Your task to perform on an android device: toggle location history Image 0: 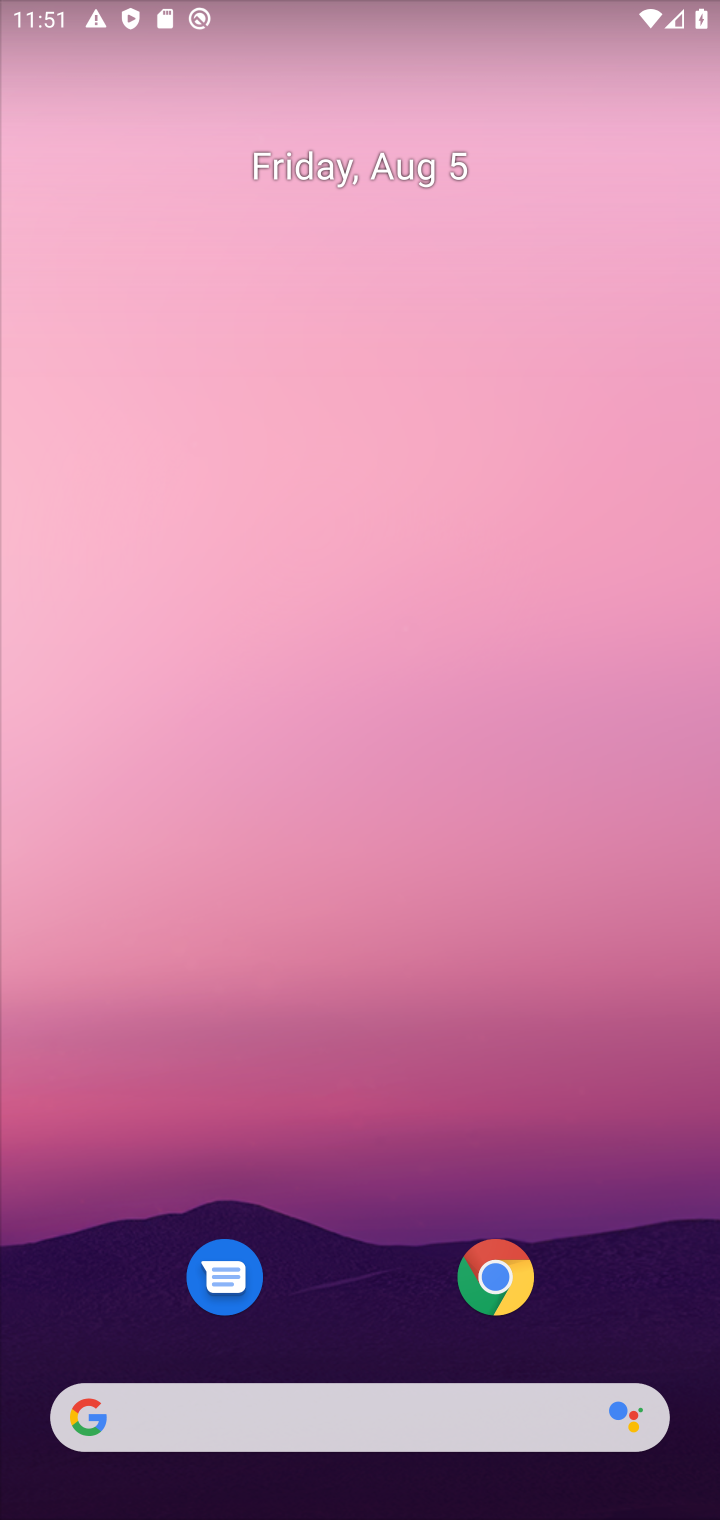
Step 0: drag from (317, 1414) to (523, 448)
Your task to perform on an android device: toggle location history Image 1: 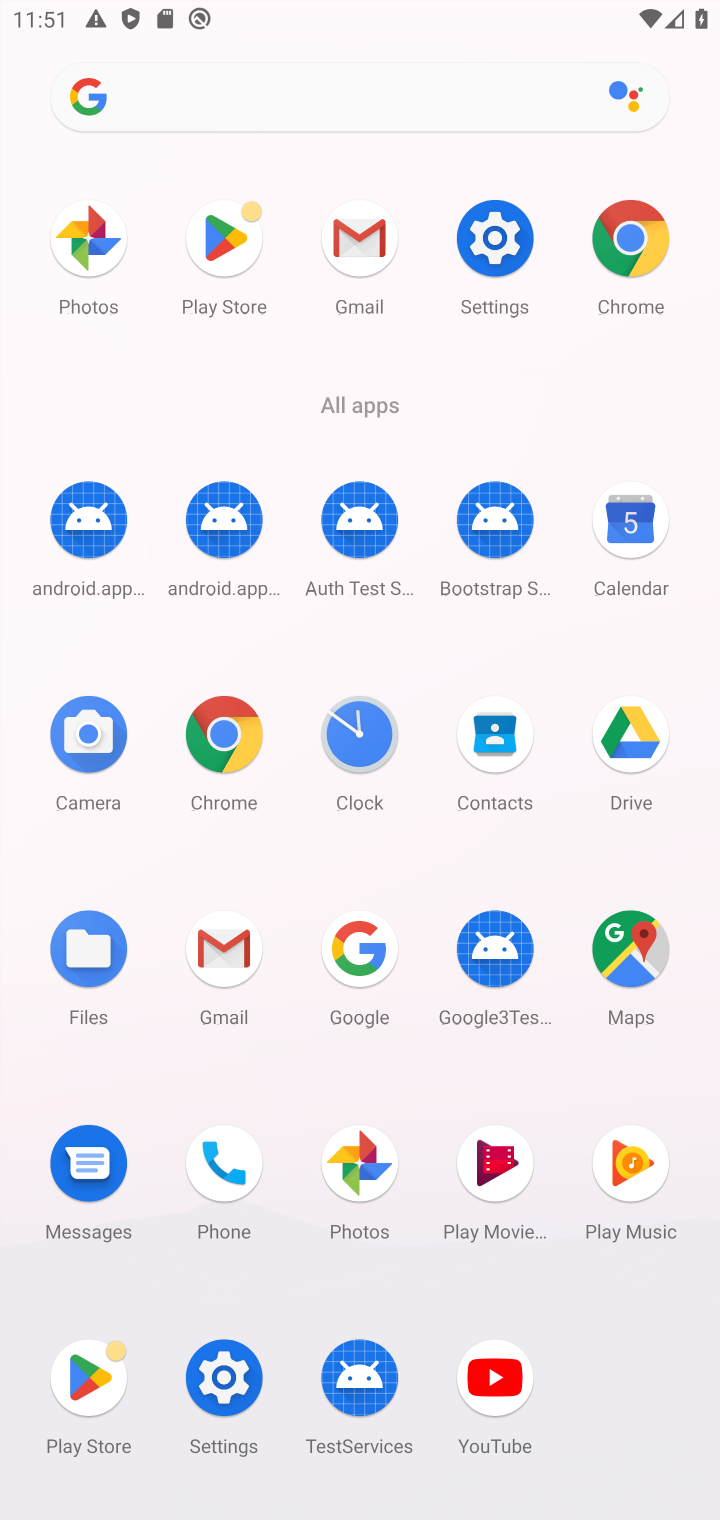
Step 1: click (488, 235)
Your task to perform on an android device: toggle location history Image 2: 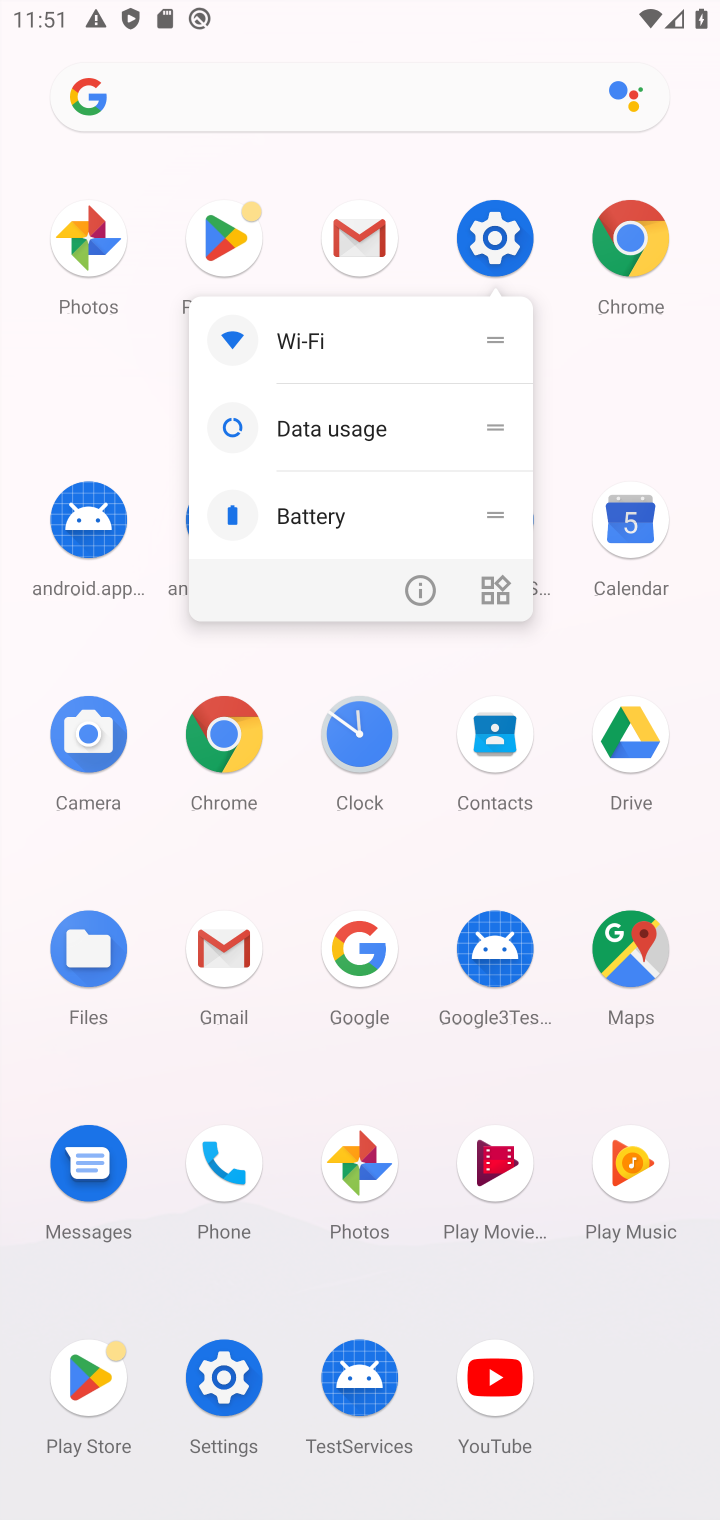
Step 2: click (490, 239)
Your task to perform on an android device: toggle location history Image 3: 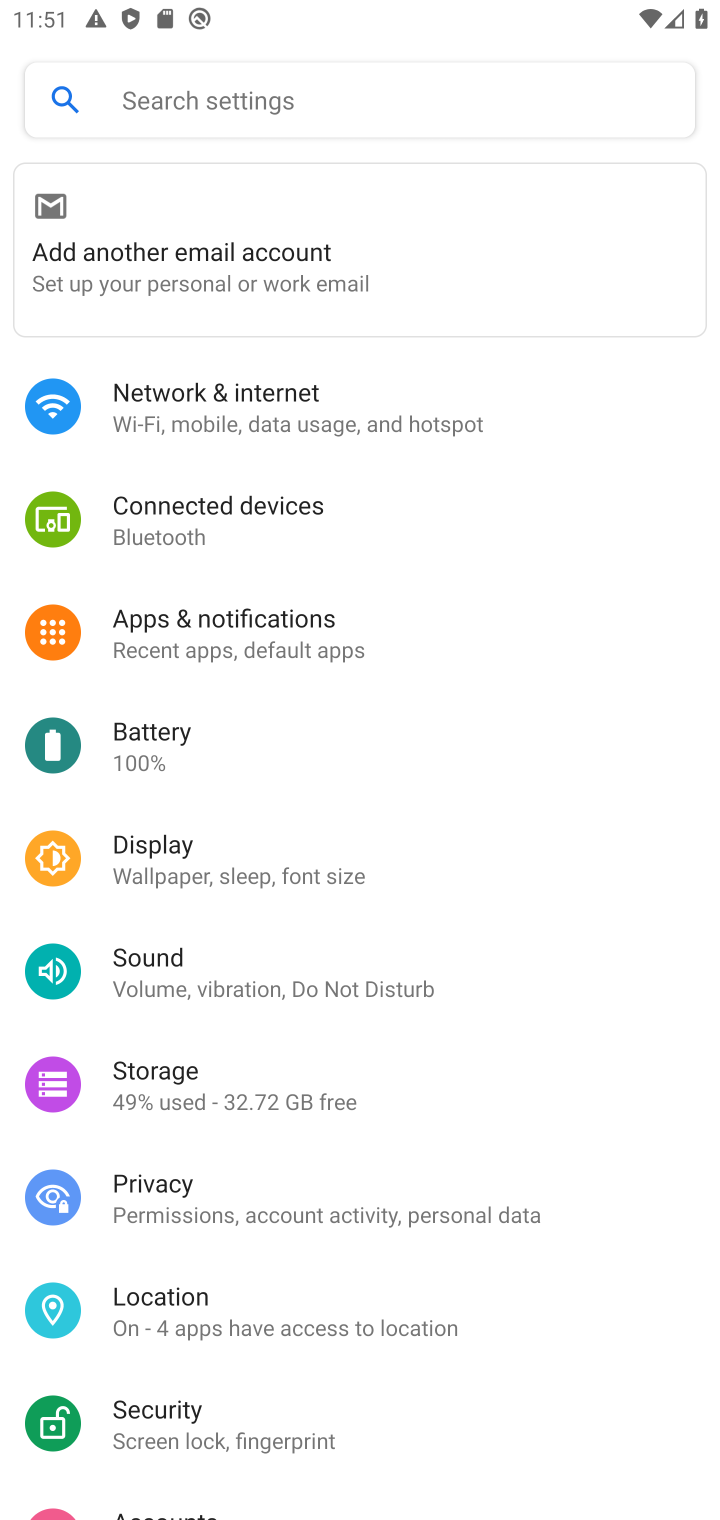
Step 3: click (191, 1304)
Your task to perform on an android device: toggle location history Image 4: 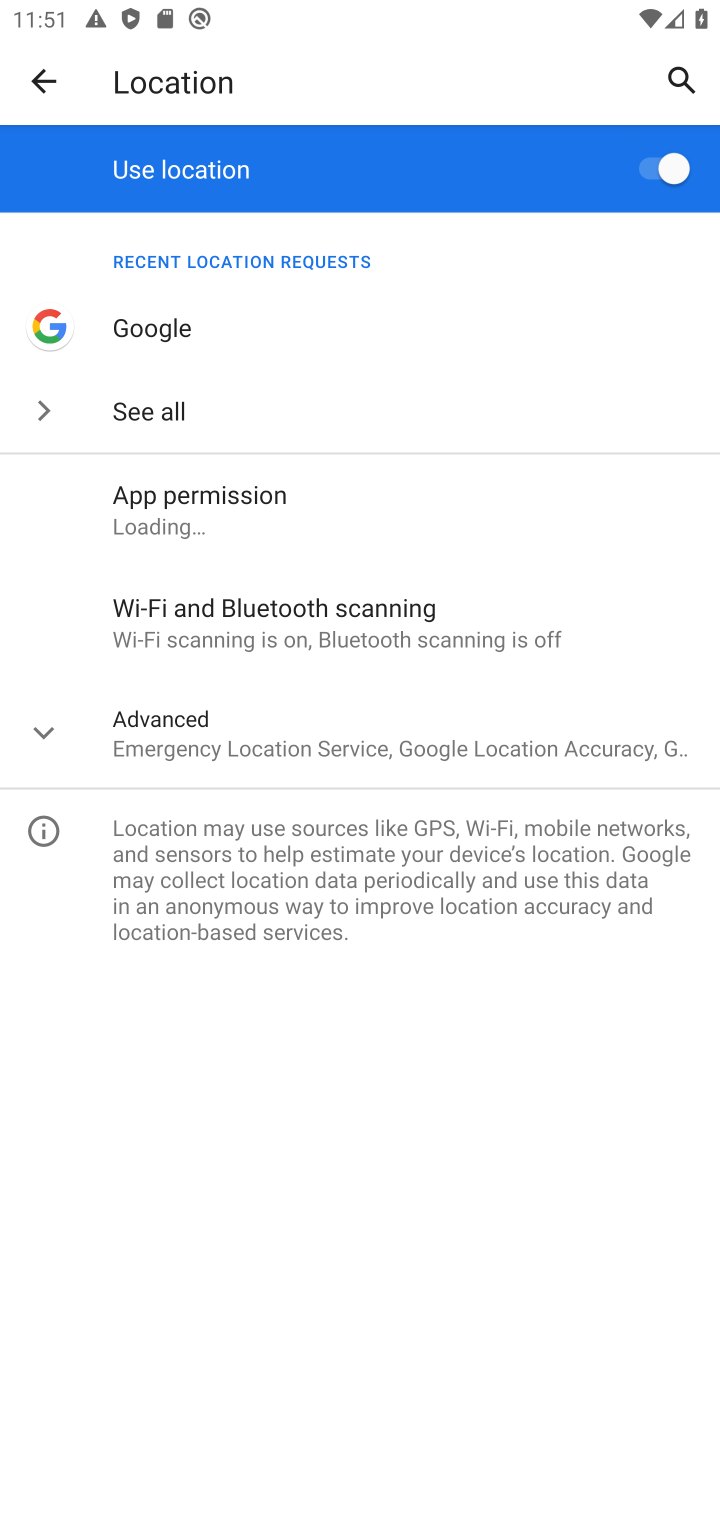
Step 4: click (177, 734)
Your task to perform on an android device: toggle location history Image 5: 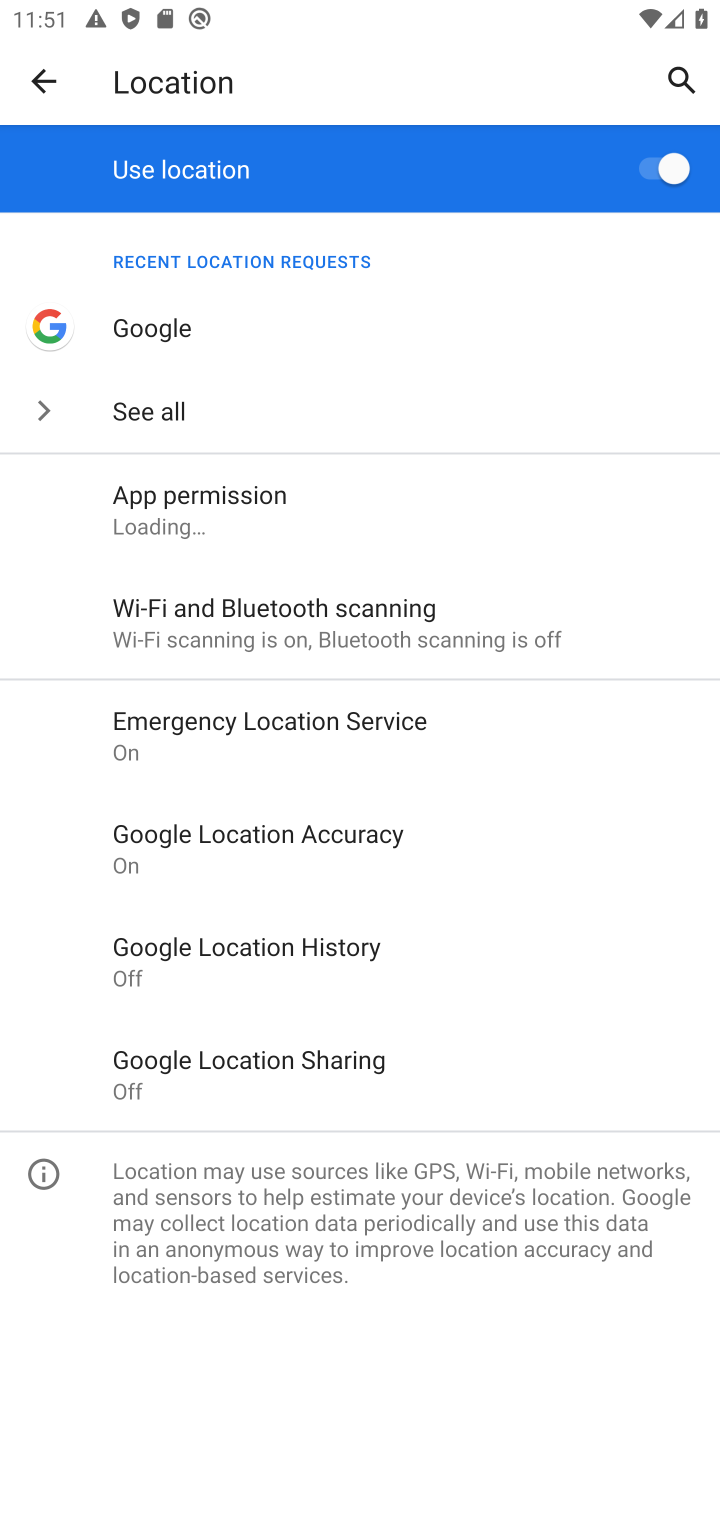
Step 5: click (305, 949)
Your task to perform on an android device: toggle location history Image 6: 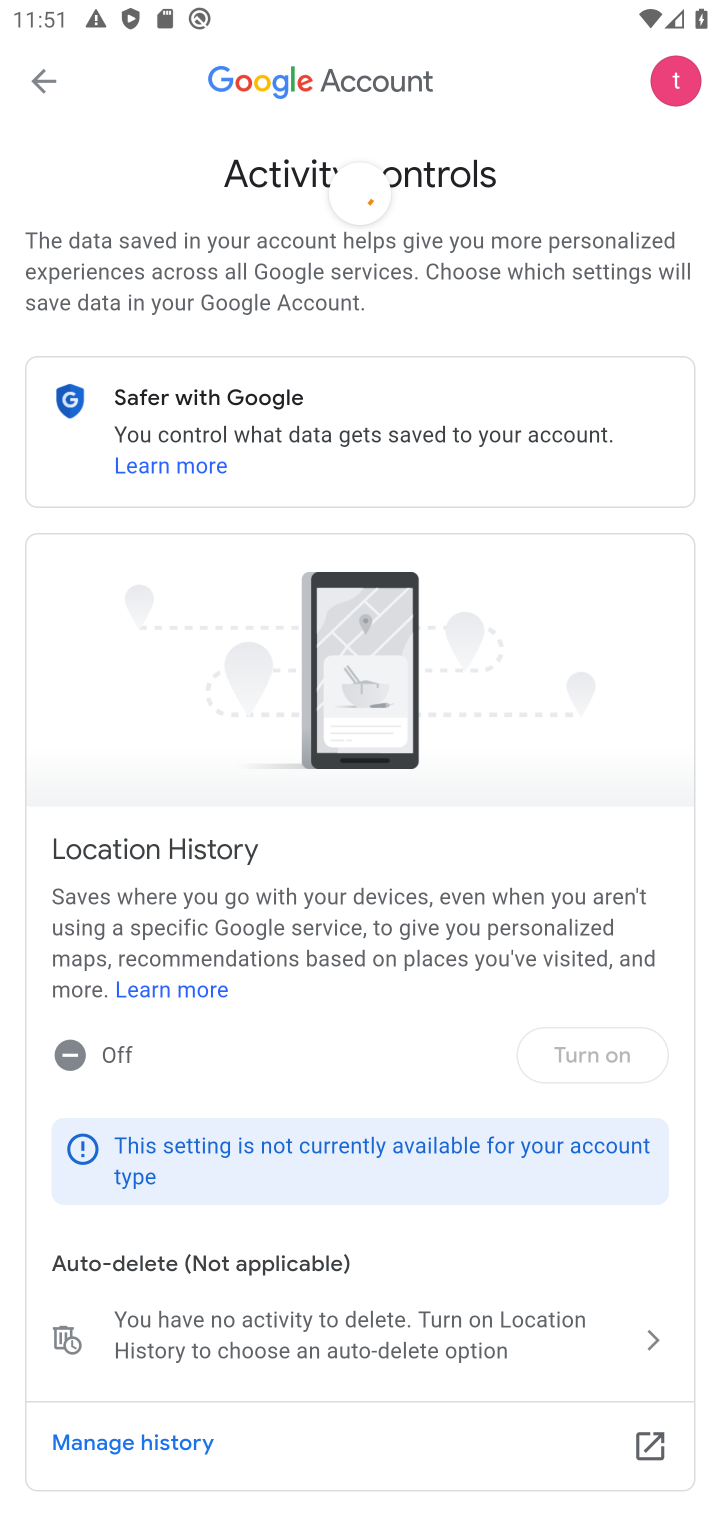
Step 6: task complete